Your task to perform on an android device: find snoozed emails in the gmail app Image 0: 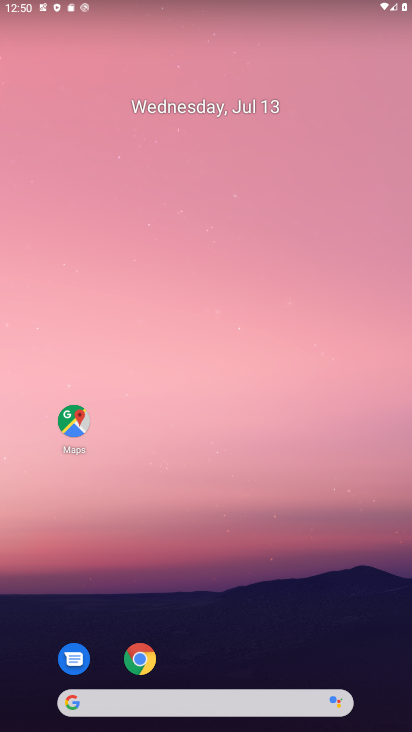
Step 0: click (262, 142)
Your task to perform on an android device: find snoozed emails in the gmail app Image 1: 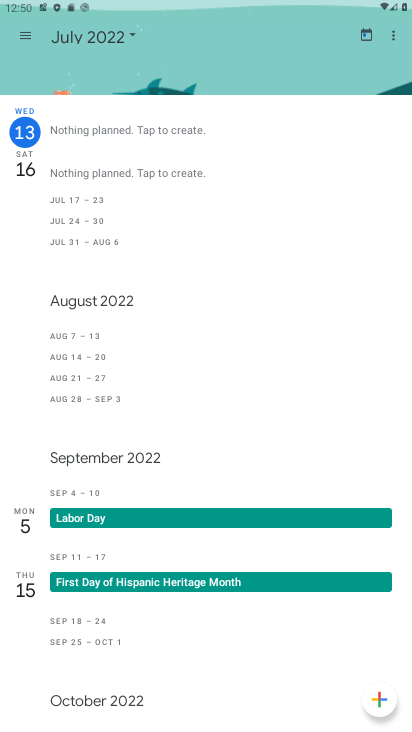
Step 1: press home button
Your task to perform on an android device: find snoozed emails in the gmail app Image 2: 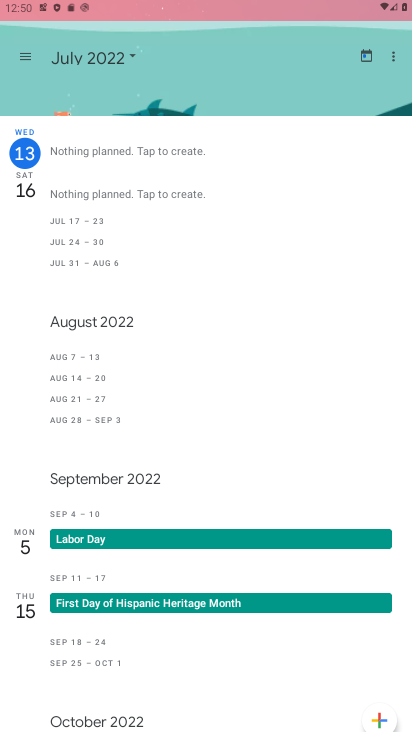
Step 2: drag from (185, 469) to (212, 119)
Your task to perform on an android device: find snoozed emails in the gmail app Image 3: 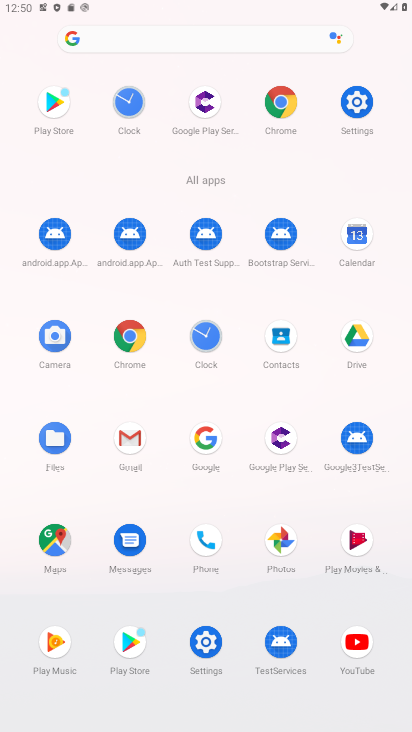
Step 3: click (133, 428)
Your task to perform on an android device: find snoozed emails in the gmail app Image 4: 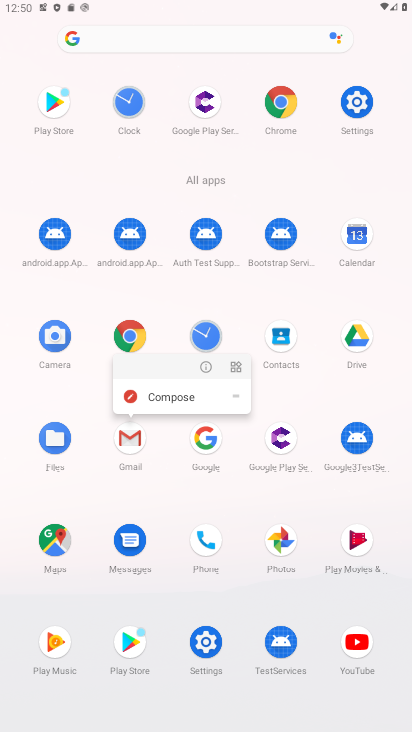
Step 4: click (203, 367)
Your task to perform on an android device: find snoozed emails in the gmail app Image 5: 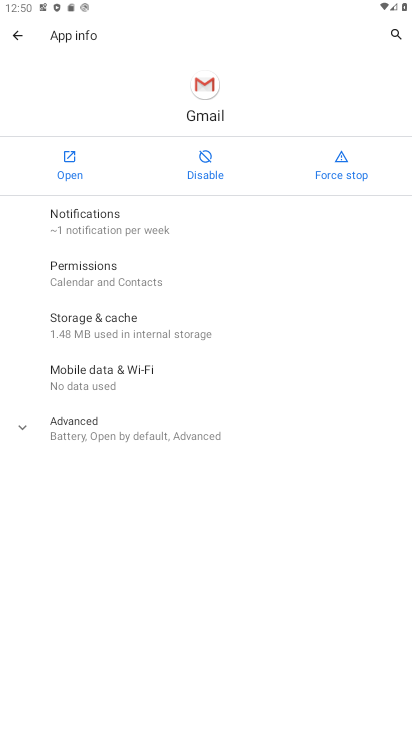
Step 5: click (69, 152)
Your task to perform on an android device: find snoozed emails in the gmail app Image 6: 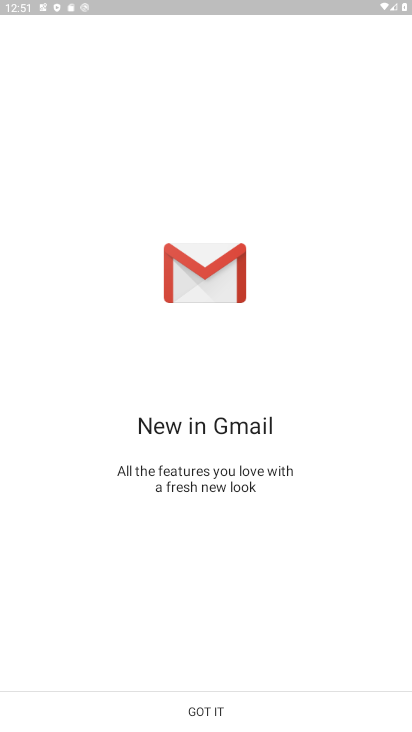
Step 6: click (194, 700)
Your task to perform on an android device: find snoozed emails in the gmail app Image 7: 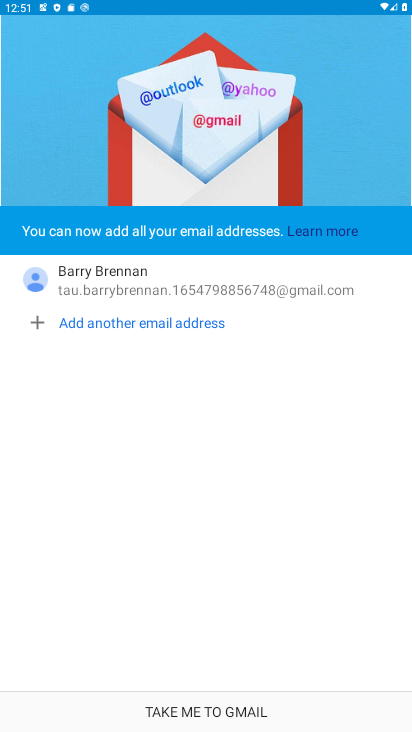
Step 7: click (220, 712)
Your task to perform on an android device: find snoozed emails in the gmail app Image 8: 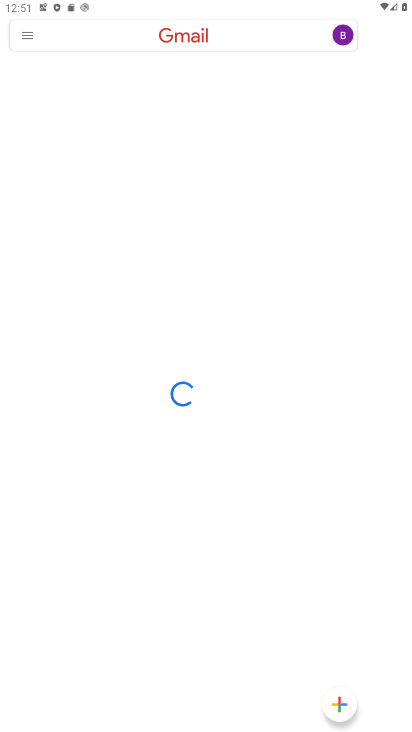
Step 8: click (68, 35)
Your task to perform on an android device: find snoozed emails in the gmail app Image 9: 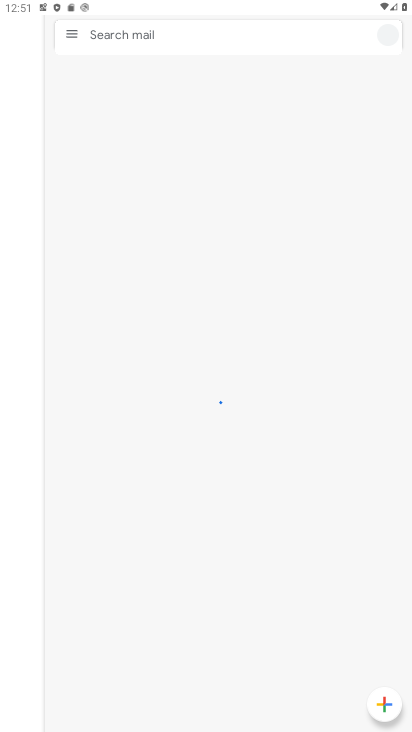
Step 9: click (30, 36)
Your task to perform on an android device: find snoozed emails in the gmail app Image 10: 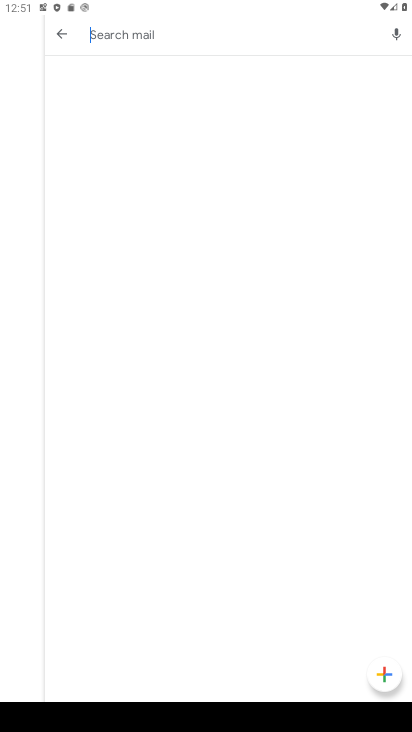
Step 10: click (50, 29)
Your task to perform on an android device: find snoozed emails in the gmail app Image 11: 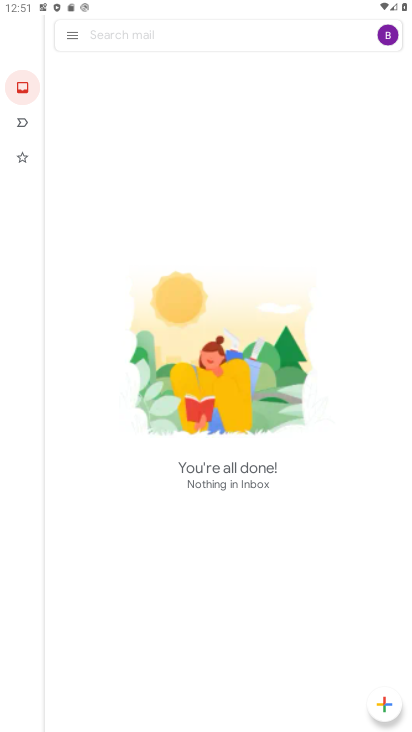
Step 11: click (72, 29)
Your task to perform on an android device: find snoozed emails in the gmail app Image 12: 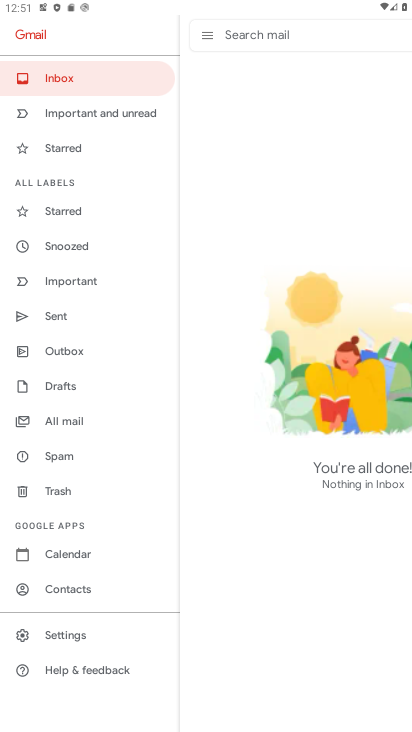
Step 12: click (67, 242)
Your task to perform on an android device: find snoozed emails in the gmail app Image 13: 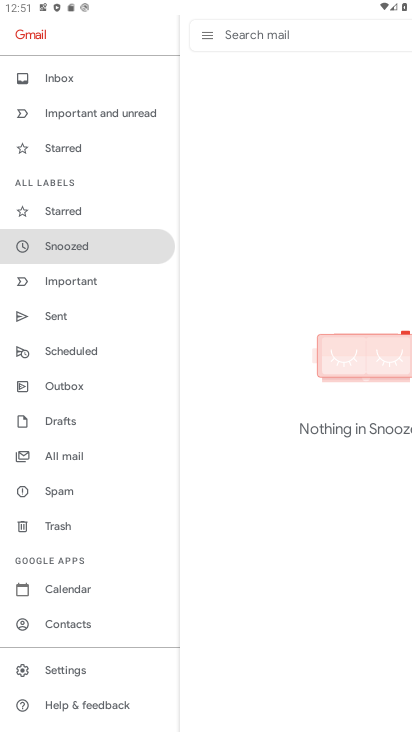
Step 13: drag from (220, 517) to (218, 248)
Your task to perform on an android device: find snoozed emails in the gmail app Image 14: 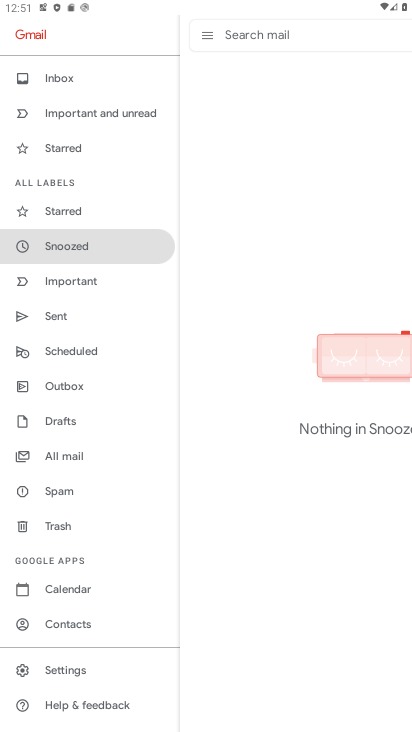
Step 14: click (205, 36)
Your task to perform on an android device: find snoozed emails in the gmail app Image 15: 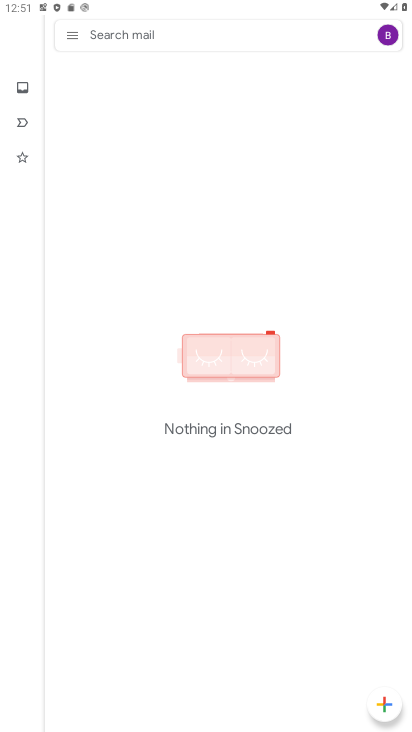
Step 15: task complete